Your task to perform on an android device: Go to wifi settings Image 0: 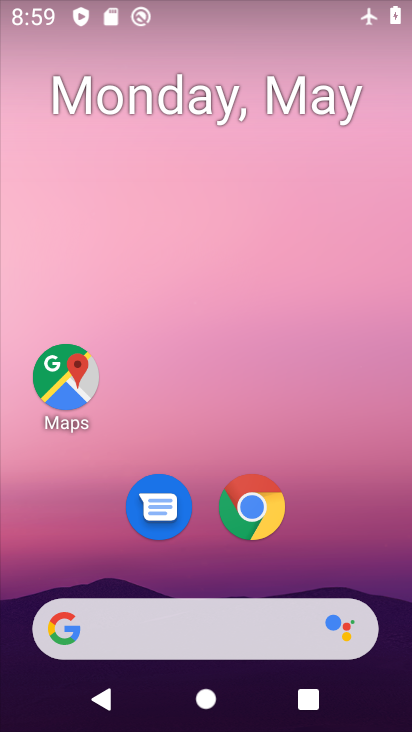
Step 0: drag from (205, 563) to (324, 27)
Your task to perform on an android device: Go to wifi settings Image 1: 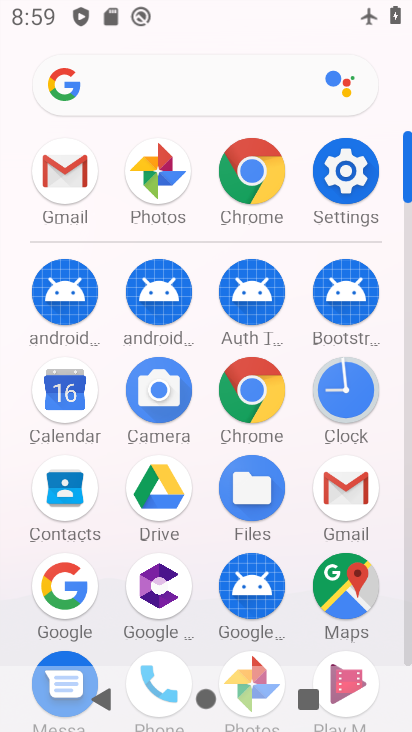
Step 1: click (354, 185)
Your task to perform on an android device: Go to wifi settings Image 2: 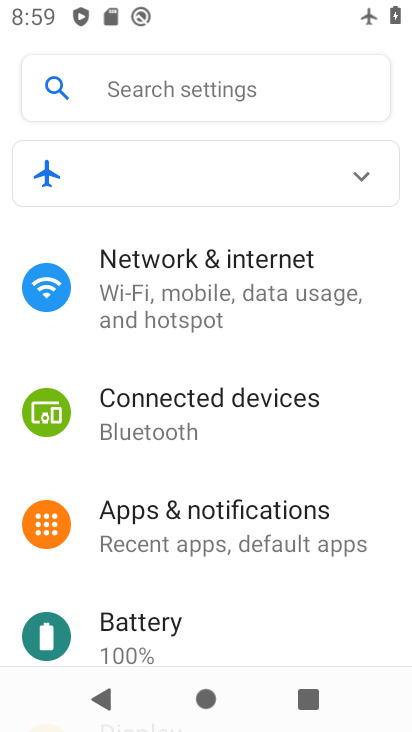
Step 2: click (163, 281)
Your task to perform on an android device: Go to wifi settings Image 3: 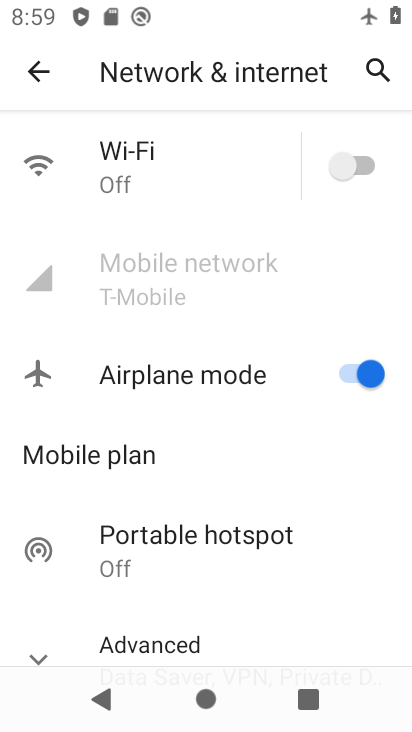
Step 3: click (156, 170)
Your task to perform on an android device: Go to wifi settings Image 4: 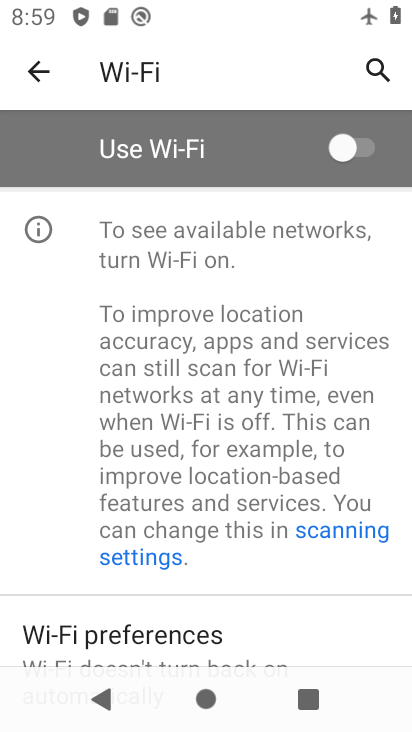
Step 4: task complete